Your task to perform on an android device: Open the calendar and show me this week's events? Image 0: 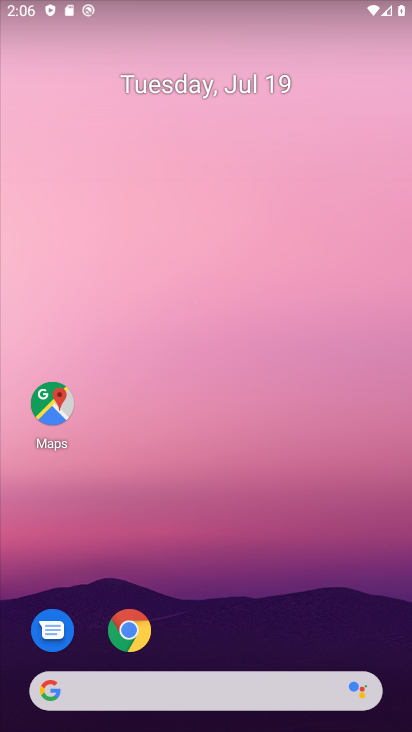
Step 0: drag from (378, 638) to (365, 241)
Your task to perform on an android device: Open the calendar and show me this week's events? Image 1: 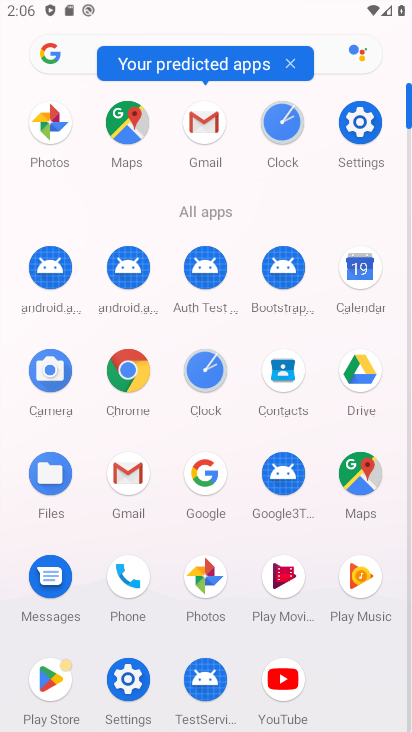
Step 1: click (357, 264)
Your task to perform on an android device: Open the calendar and show me this week's events? Image 2: 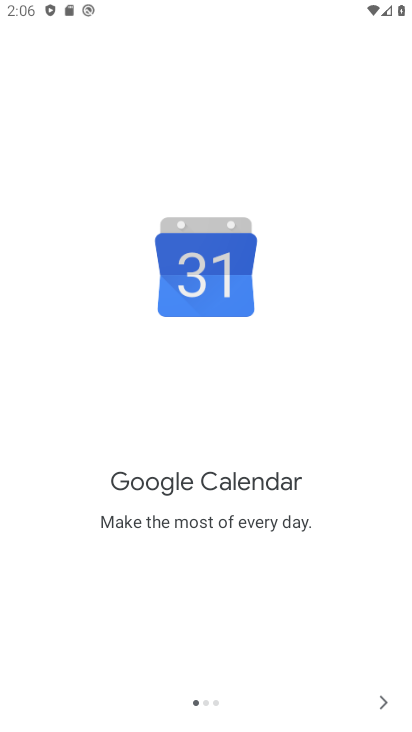
Step 2: click (384, 698)
Your task to perform on an android device: Open the calendar and show me this week's events? Image 3: 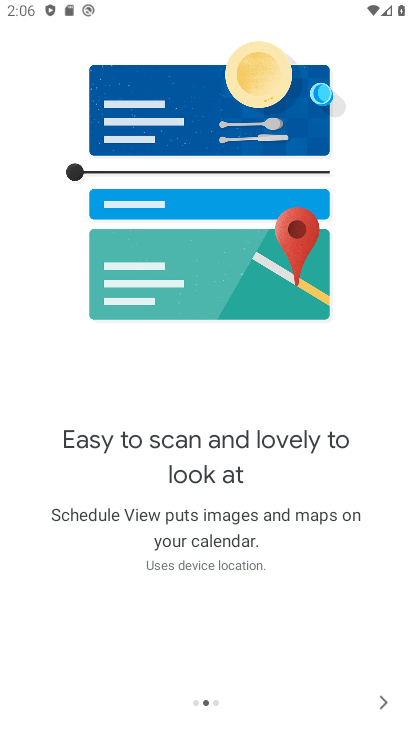
Step 3: click (384, 698)
Your task to perform on an android device: Open the calendar and show me this week's events? Image 4: 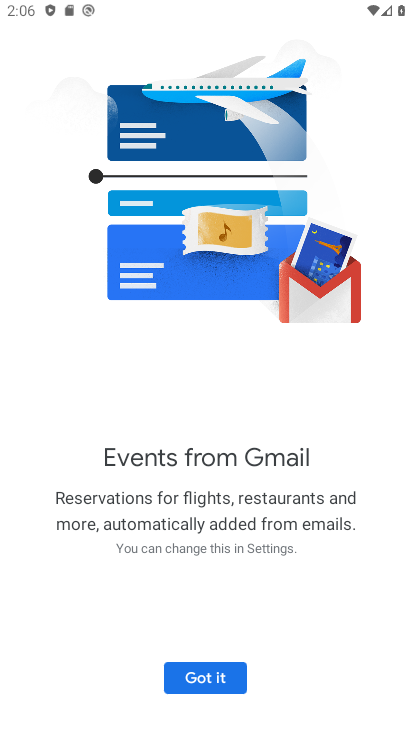
Step 4: click (204, 674)
Your task to perform on an android device: Open the calendar and show me this week's events? Image 5: 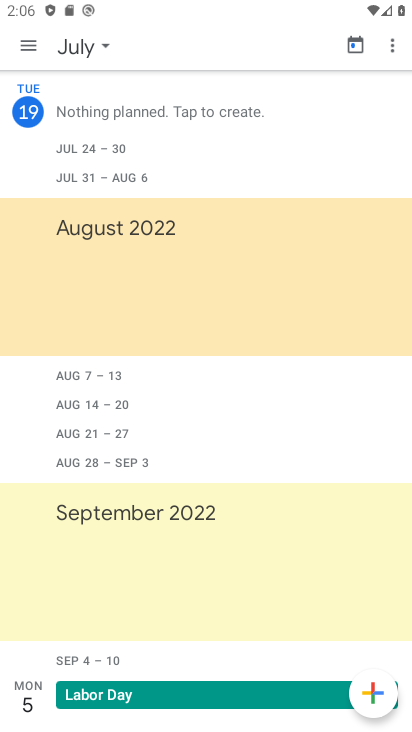
Step 5: click (27, 42)
Your task to perform on an android device: Open the calendar and show me this week's events? Image 6: 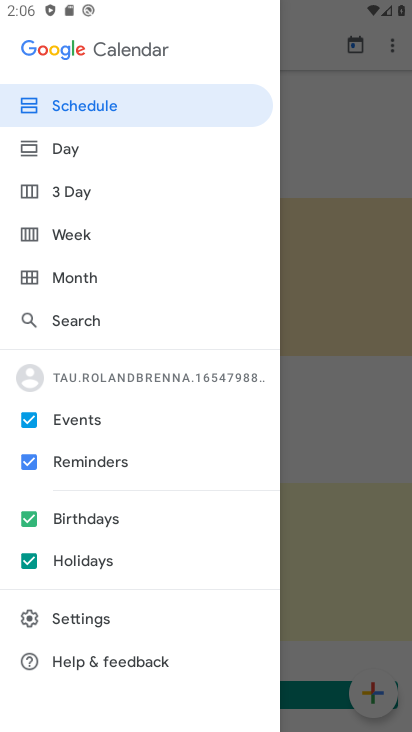
Step 6: click (66, 234)
Your task to perform on an android device: Open the calendar and show me this week's events? Image 7: 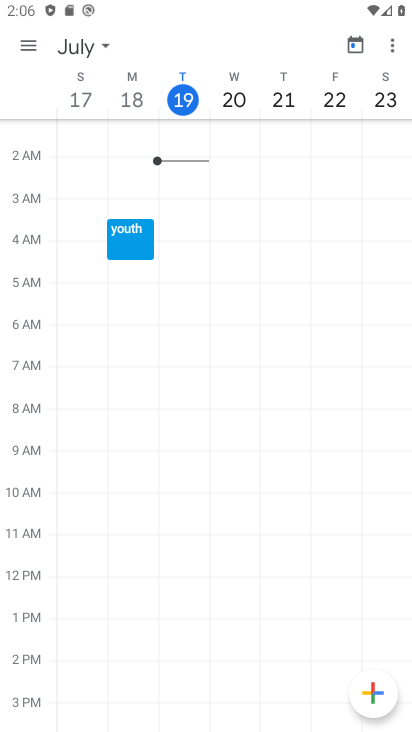
Step 7: click (106, 44)
Your task to perform on an android device: Open the calendar and show me this week's events? Image 8: 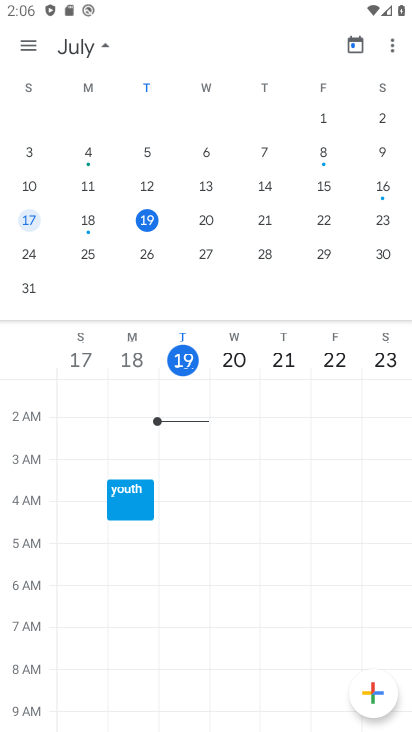
Step 8: task complete